Your task to perform on an android device: open the mobile data screen to see how much data has been used Image 0: 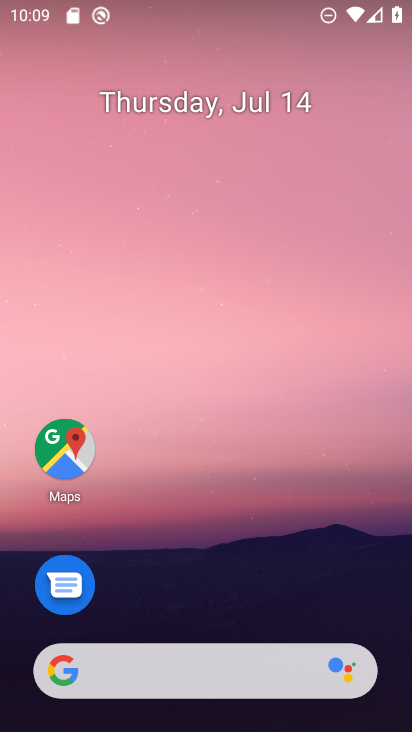
Step 0: drag from (198, 639) to (20, 48)
Your task to perform on an android device: open the mobile data screen to see how much data has been used Image 1: 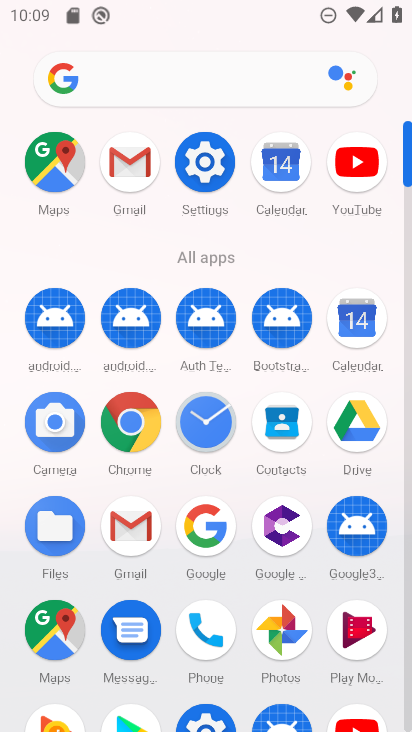
Step 1: click (197, 177)
Your task to perform on an android device: open the mobile data screen to see how much data has been used Image 2: 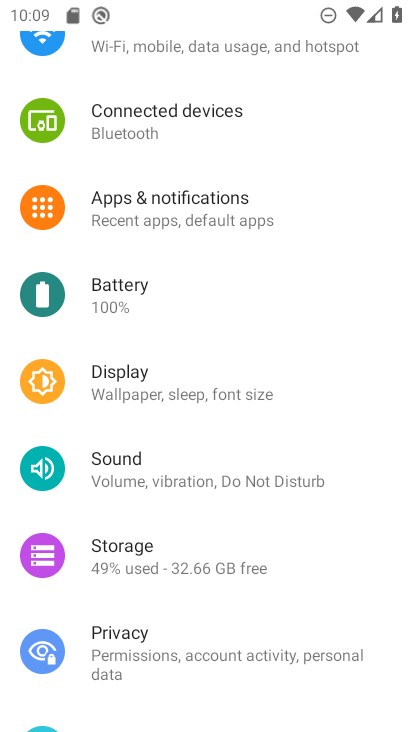
Step 2: drag from (197, 177) to (256, 469)
Your task to perform on an android device: open the mobile data screen to see how much data has been used Image 3: 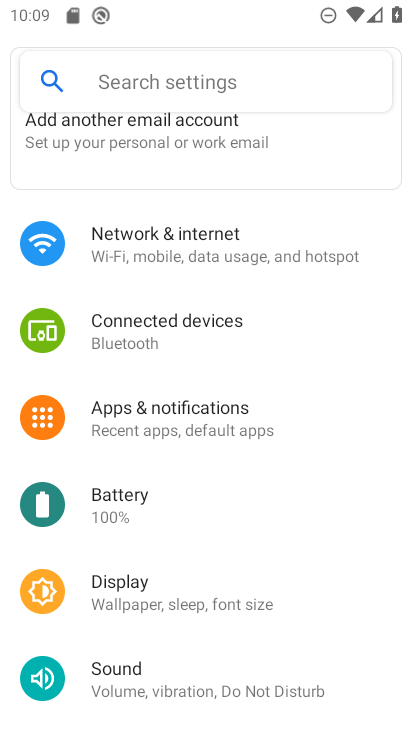
Step 3: click (158, 256)
Your task to perform on an android device: open the mobile data screen to see how much data has been used Image 4: 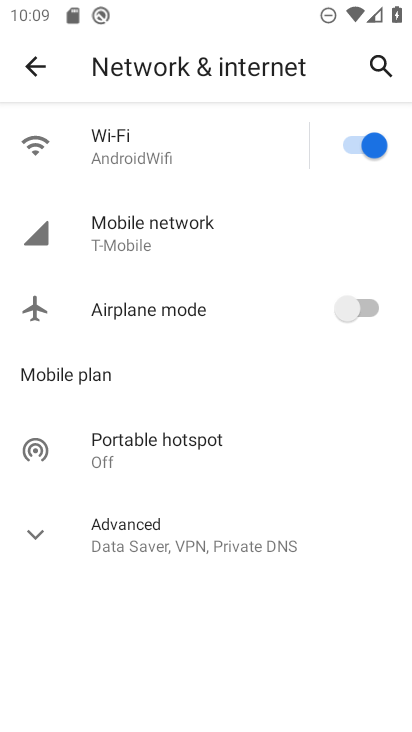
Step 4: click (121, 214)
Your task to perform on an android device: open the mobile data screen to see how much data has been used Image 5: 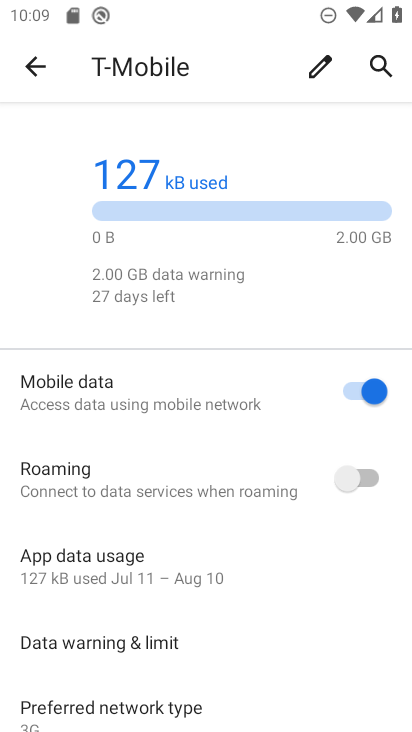
Step 5: task complete